Your task to perform on an android device: Do I have any events today? Image 0: 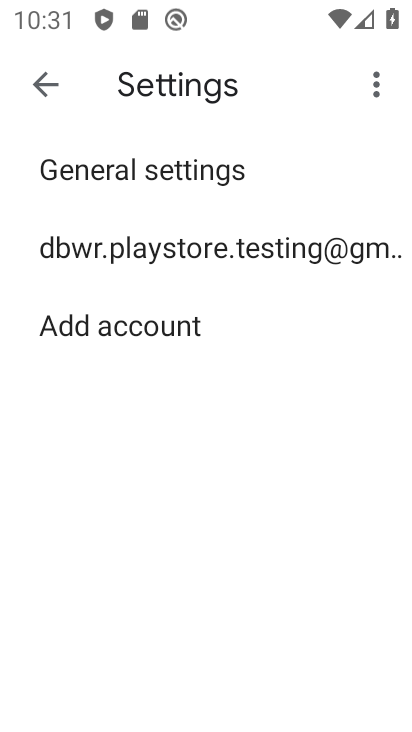
Step 0: press home button
Your task to perform on an android device: Do I have any events today? Image 1: 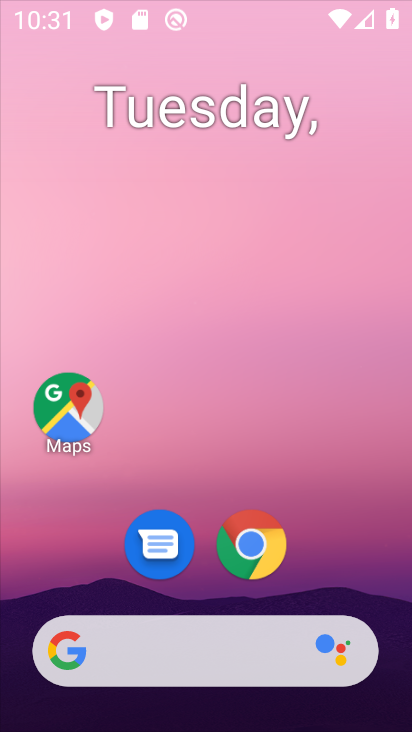
Step 1: drag from (395, 598) to (302, 61)
Your task to perform on an android device: Do I have any events today? Image 2: 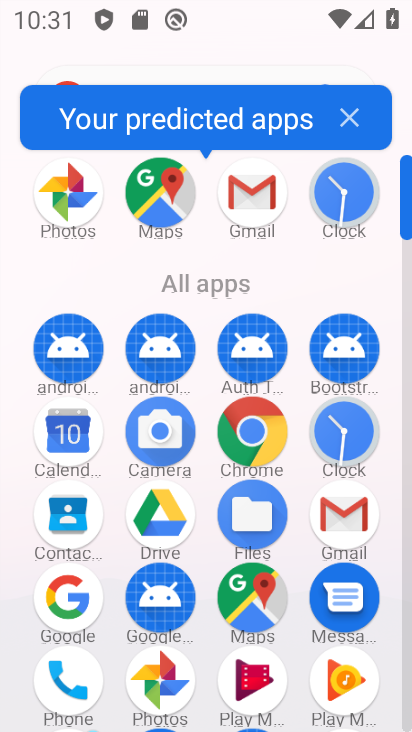
Step 2: click (88, 453)
Your task to perform on an android device: Do I have any events today? Image 3: 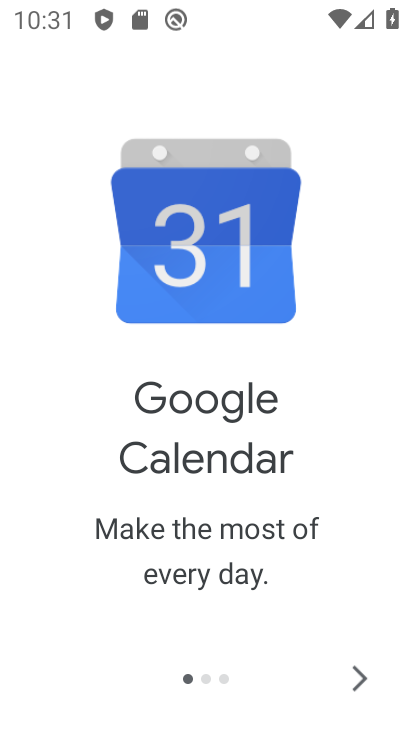
Step 3: click (366, 676)
Your task to perform on an android device: Do I have any events today? Image 4: 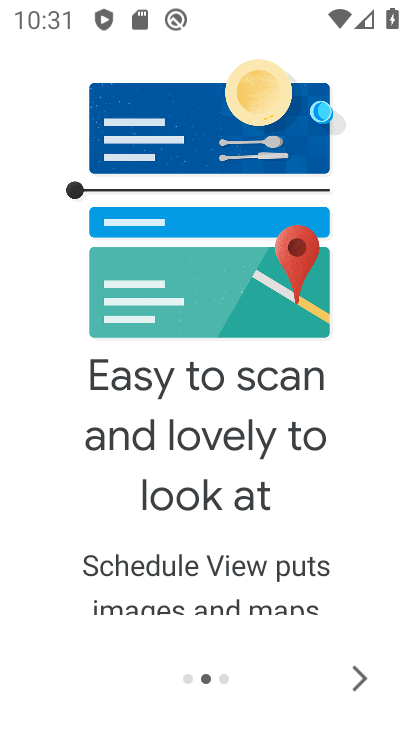
Step 4: click (366, 676)
Your task to perform on an android device: Do I have any events today? Image 5: 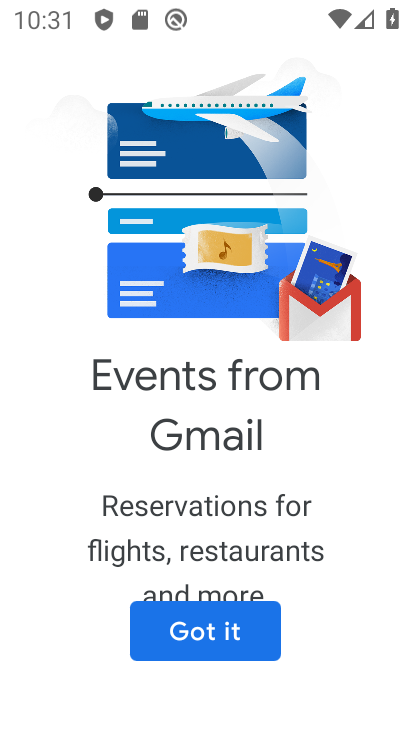
Step 5: click (225, 631)
Your task to perform on an android device: Do I have any events today? Image 6: 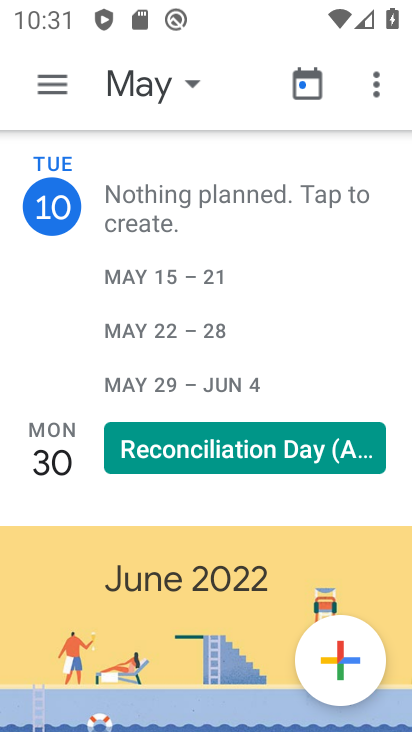
Step 6: click (57, 92)
Your task to perform on an android device: Do I have any events today? Image 7: 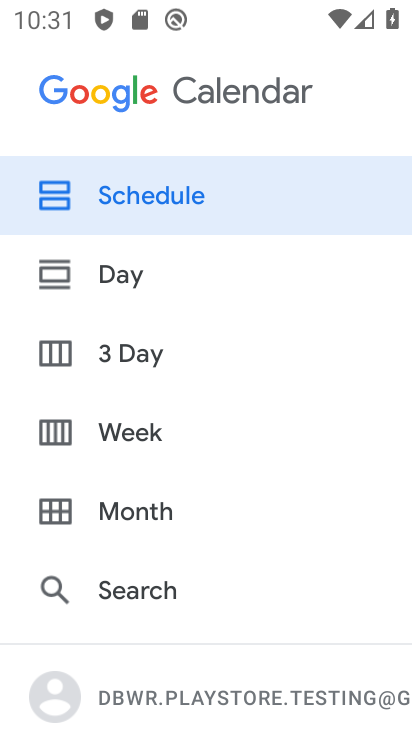
Step 7: click (221, 192)
Your task to perform on an android device: Do I have any events today? Image 8: 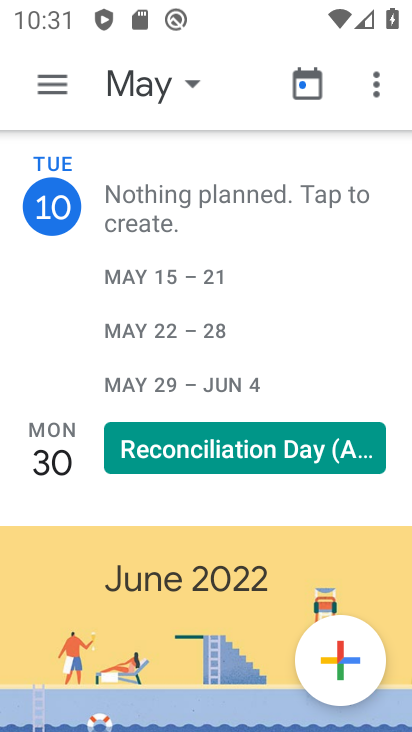
Step 8: click (151, 90)
Your task to perform on an android device: Do I have any events today? Image 9: 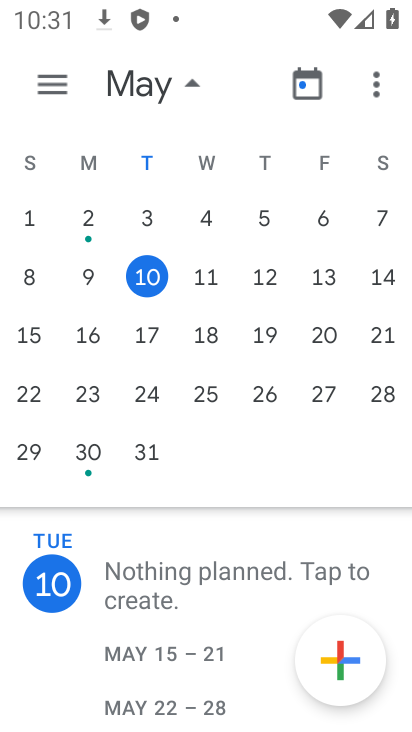
Step 9: click (213, 281)
Your task to perform on an android device: Do I have any events today? Image 10: 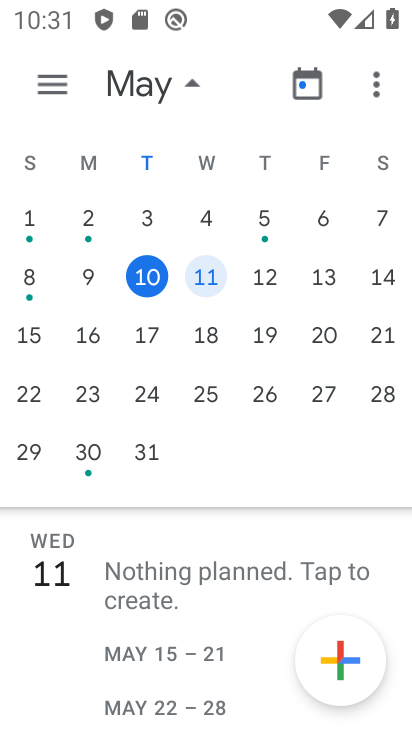
Step 10: task complete